Your task to perform on an android device: Open location settings Image 0: 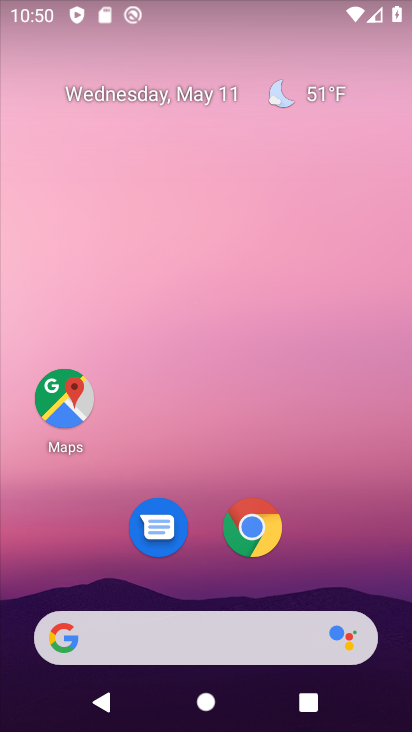
Step 0: drag from (350, 558) to (327, 59)
Your task to perform on an android device: Open location settings Image 1: 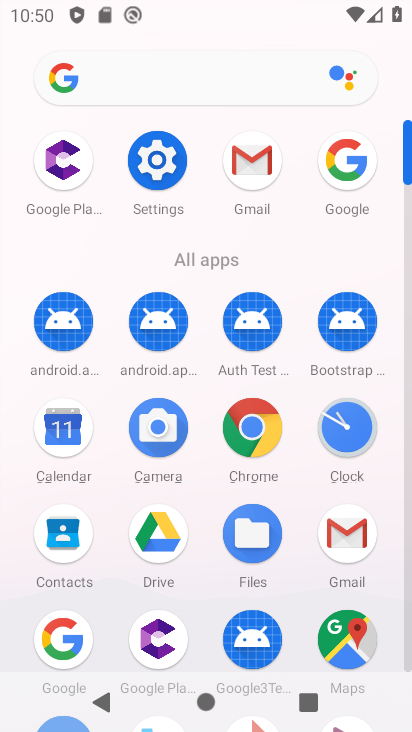
Step 1: click (159, 160)
Your task to perform on an android device: Open location settings Image 2: 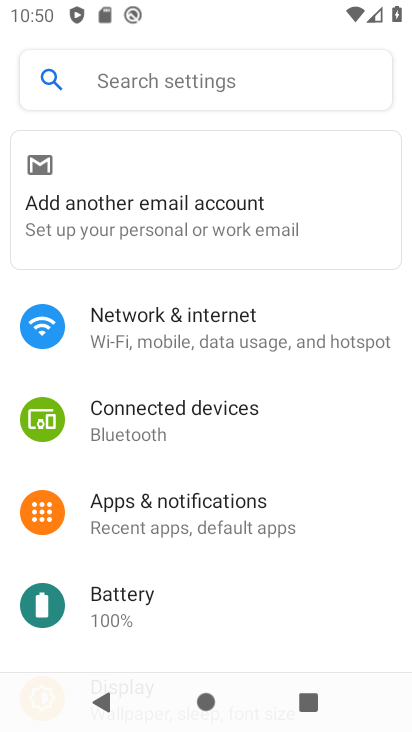
Step 2: drag from (186, 543) to (237, 398)
Your task to perform on an android device: Open location settings Image 3: 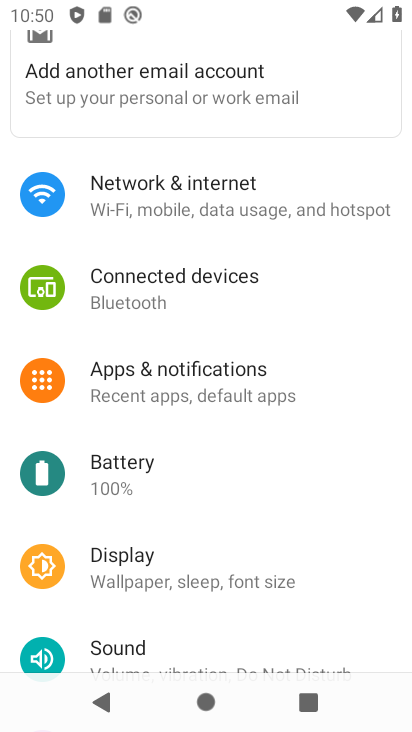
Step 3: drag from (182, 543) to (213, 405)
Your task to perform on an android device: Open location settings Image 4: 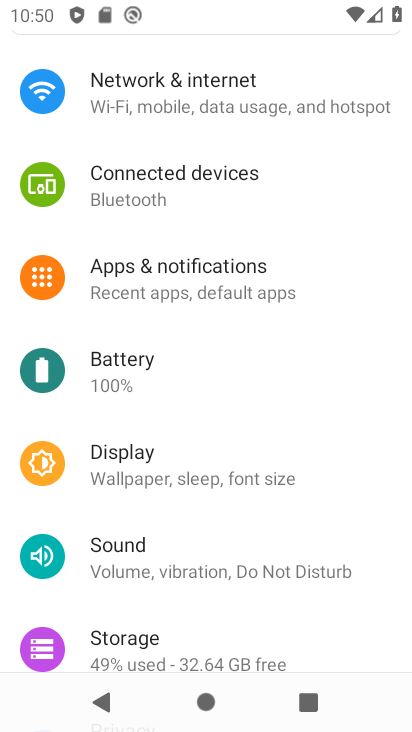
Step 4: drag from (175, 595) to (222, 419)
Your task to perform on an android device: Open location settings Image 5: 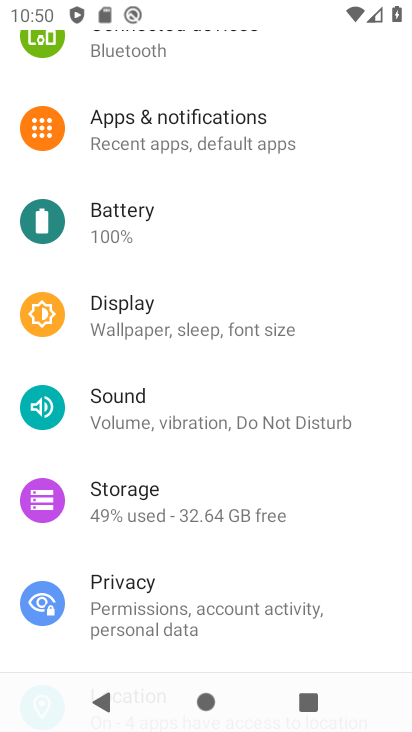
Step 5: drag from (175, 587) to (223, 438)
Your task to perform on an android device: Open location settings Image 6: 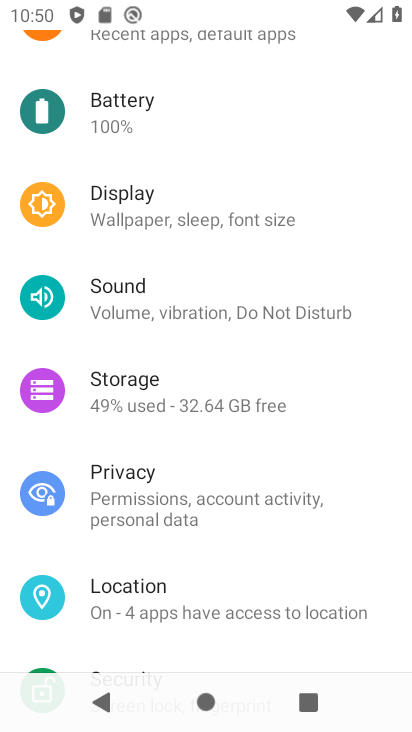
Step 6: click (152, 601)
Your task to perform on an android device: Open location settings Image 7: 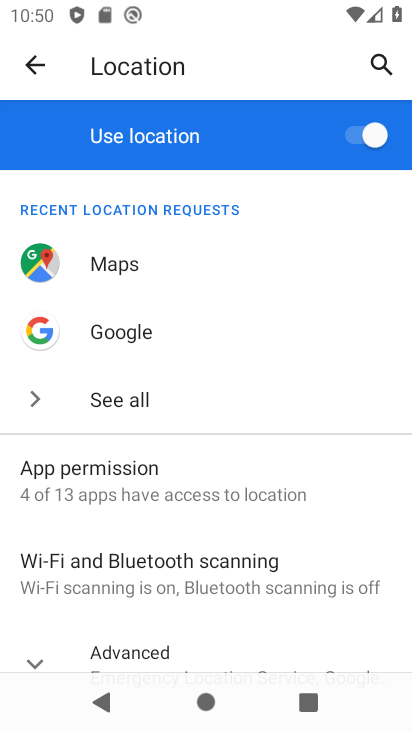
Step 7: task complete